Your task to perform on an android device: Show the shopping cart on newegg.com. Search for panasonic triple a on newegg.com, select the first entry, add it to the cart, then select checkout. Image 0: 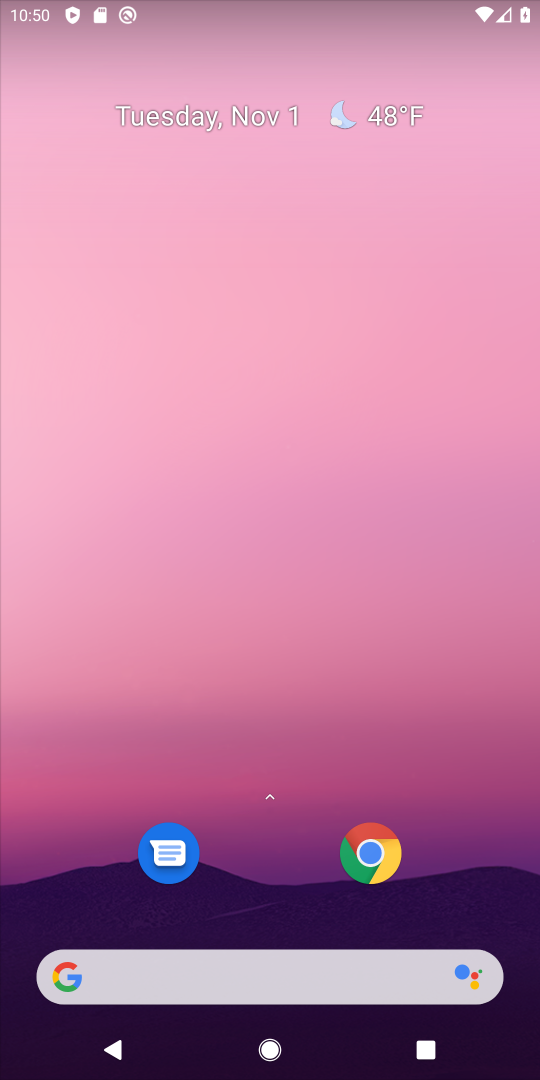
Step 0: drag from (348, 1024) to (384, 105)
Your task to perform on an android device: Show the shopping cart on newegg.com. Search for panasonic triple a on newegg.com, select the first entry, add it to the cart, then select checkout. Image 1: 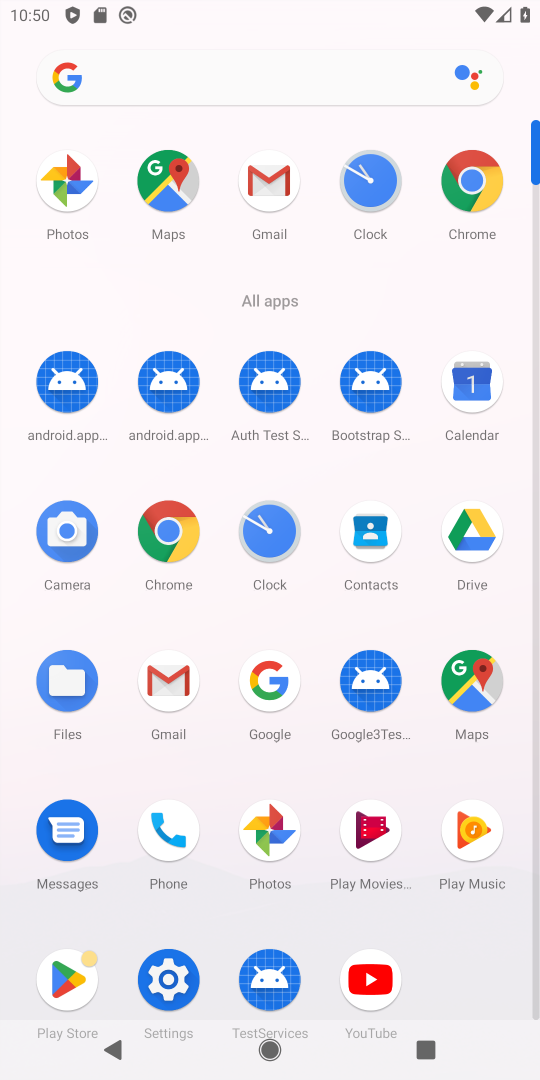
Step 1: click (163, 542)
Your task to perform on an android device: Show the shopping cart on newegg.com. Search for panasonic triple a on newegg.com, select the first entry, add it to the cart, then select checkout. Image 2: 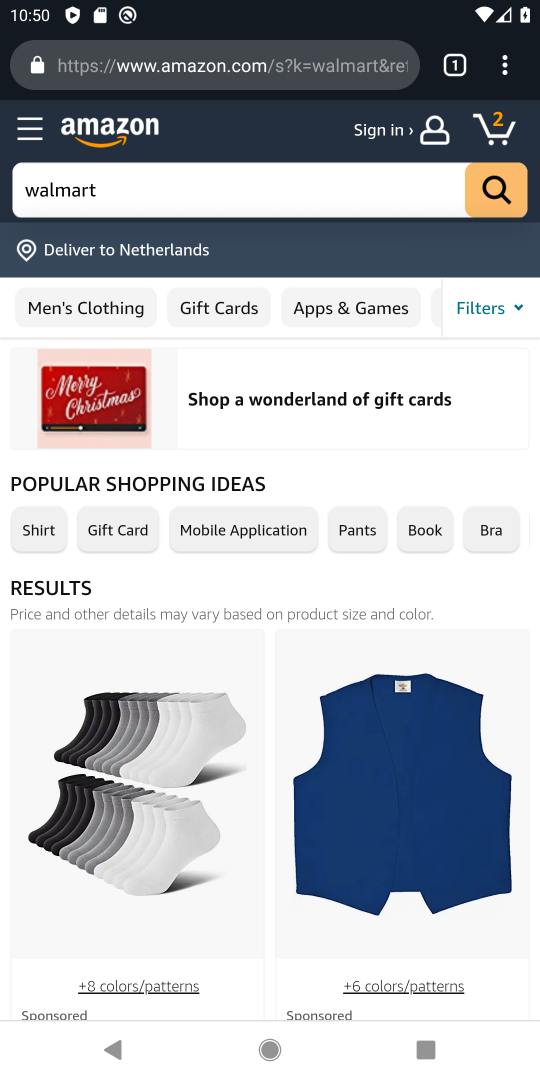
Step 2: click (220, 63)
Your task to perform on an android device: Show the shopping cart on newegg.com. Search for panasonic triple a on newegg.com, select the first entry, add it to the cart, then select checkout. Image 3: 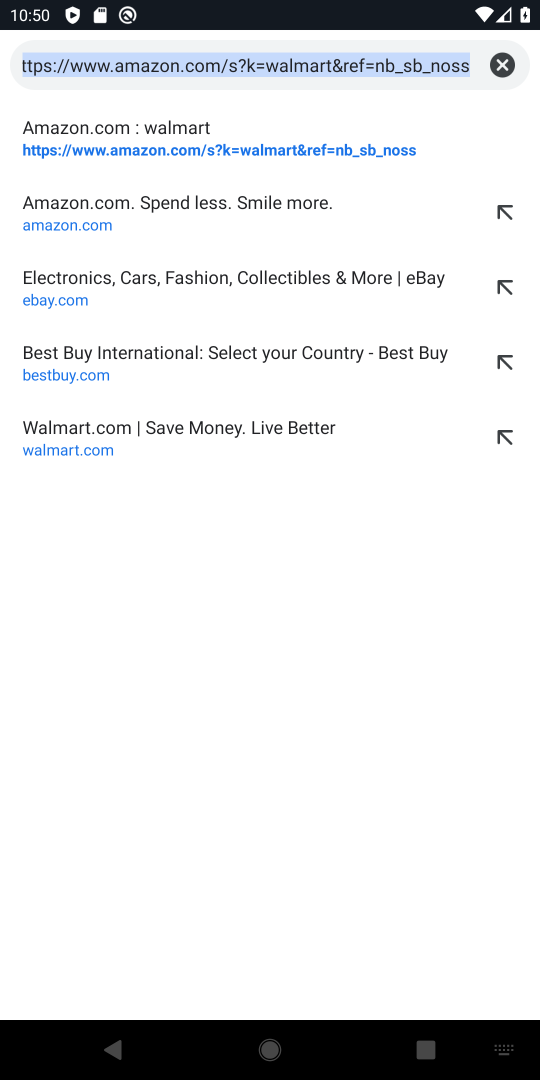
Step 3: click (495, 65)
Your task to perform on an android device: Show the shopping cart on newegg.com. Search for panasonic triple a on newegg.com, select the first entry, add it to the cart, then select checkout. Image 4: 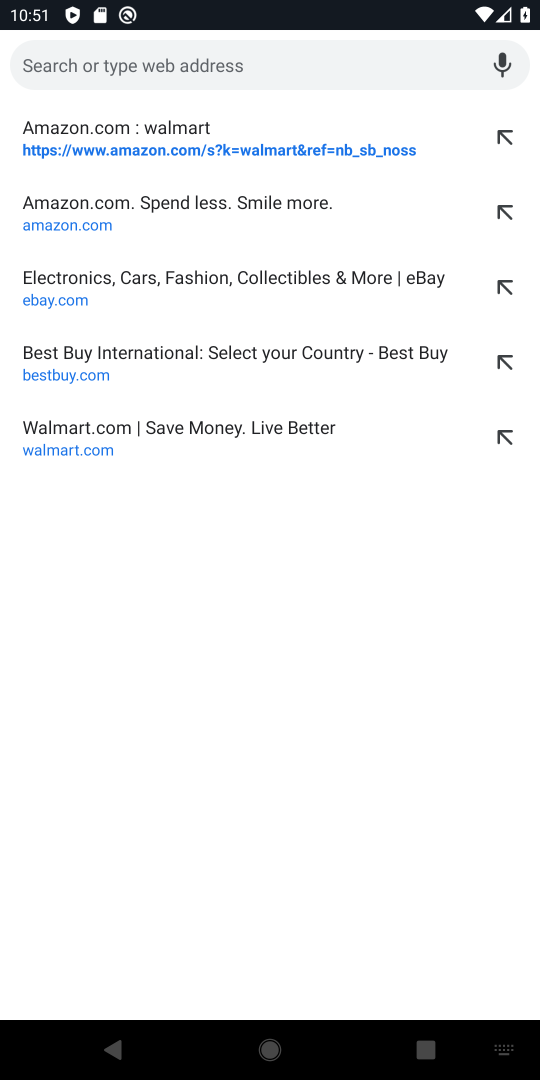
Step 4: type "newegg.com"
Your task to perform on an android device: Show the shopping cart on newegg.com. Search for panasonic triple a on newegg.com, select the first entry, add it to the cart, then select checkout. Image 5: 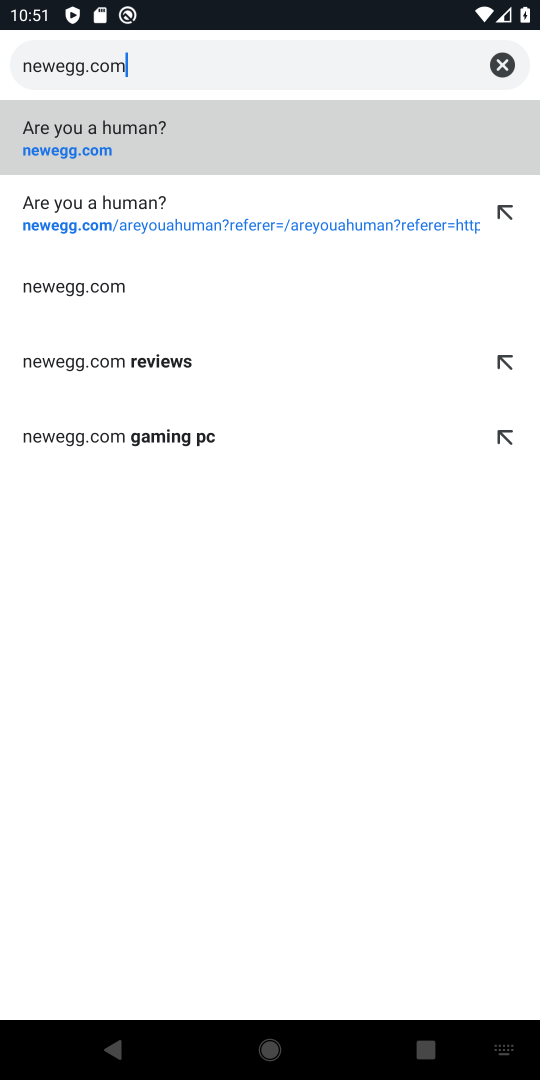
Step 5: click (95, 147)
Your task to perform on an android device: Show the shopping cart on newegg.com. Search for panasonic triple a on newegg.com, select the first entry, add it to the cart, then select checkout. Image 6: 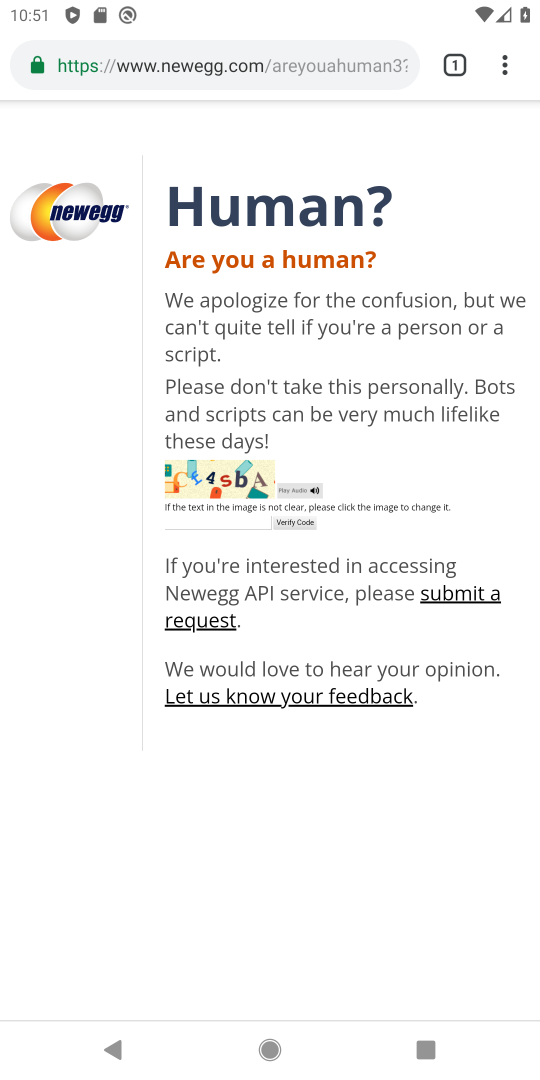
Step 6: task complete